Your task to perform on an android device: set the stopwatch Image 0: 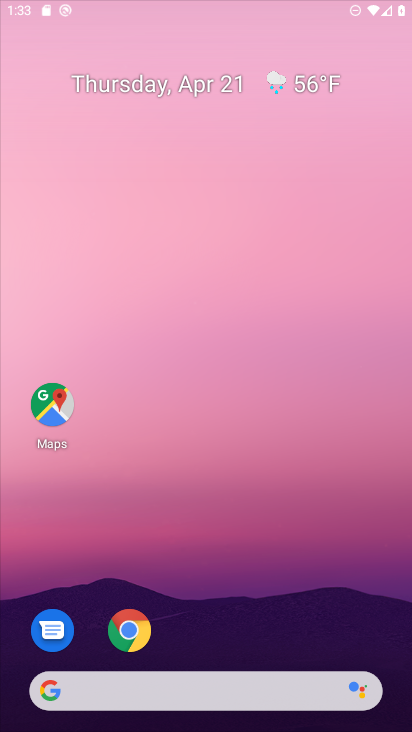
Step 0: drag from (201, 681) to (228, 174)
Your task to perform on an android device: set the stopwatch Image 1: 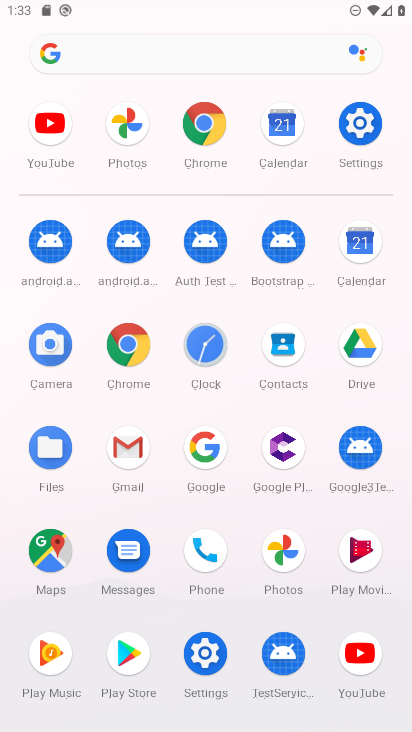
Step 1: click (212, 353)
Your task to perform on an android device: set the stopwatch Image 2: 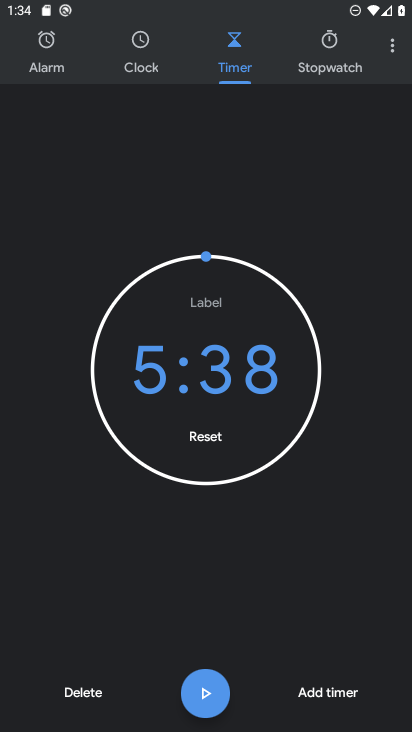
Step 2: click (198, 683)
Your task to perform on an android device: set the stopwatch Image 3: 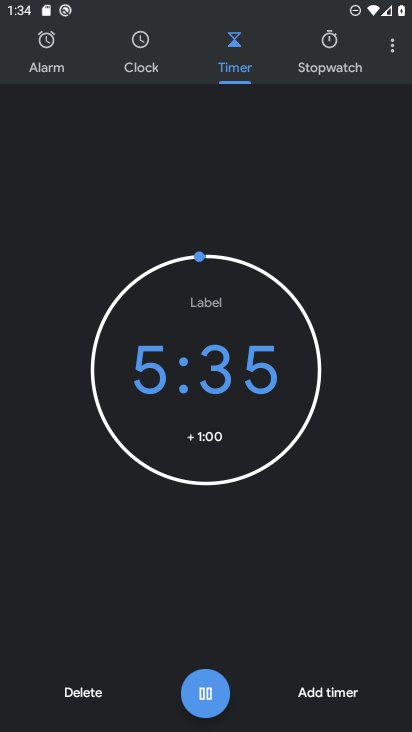
Step 3: task complete